Your task to perform on an android device: turn off javascript in the chrome app Image 0: 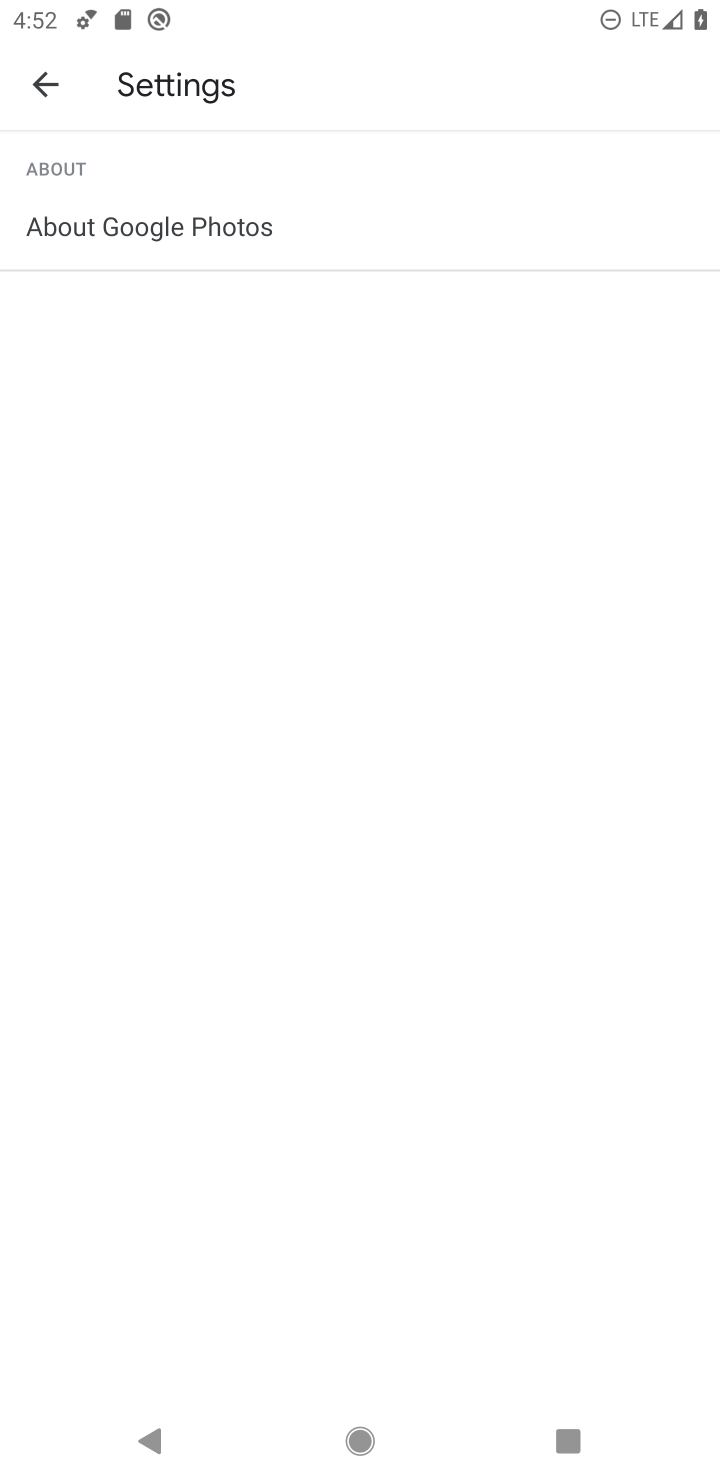
Step 0: press back button
Your task to perform on an android device: turn off javascript in the chrome app Image 1: 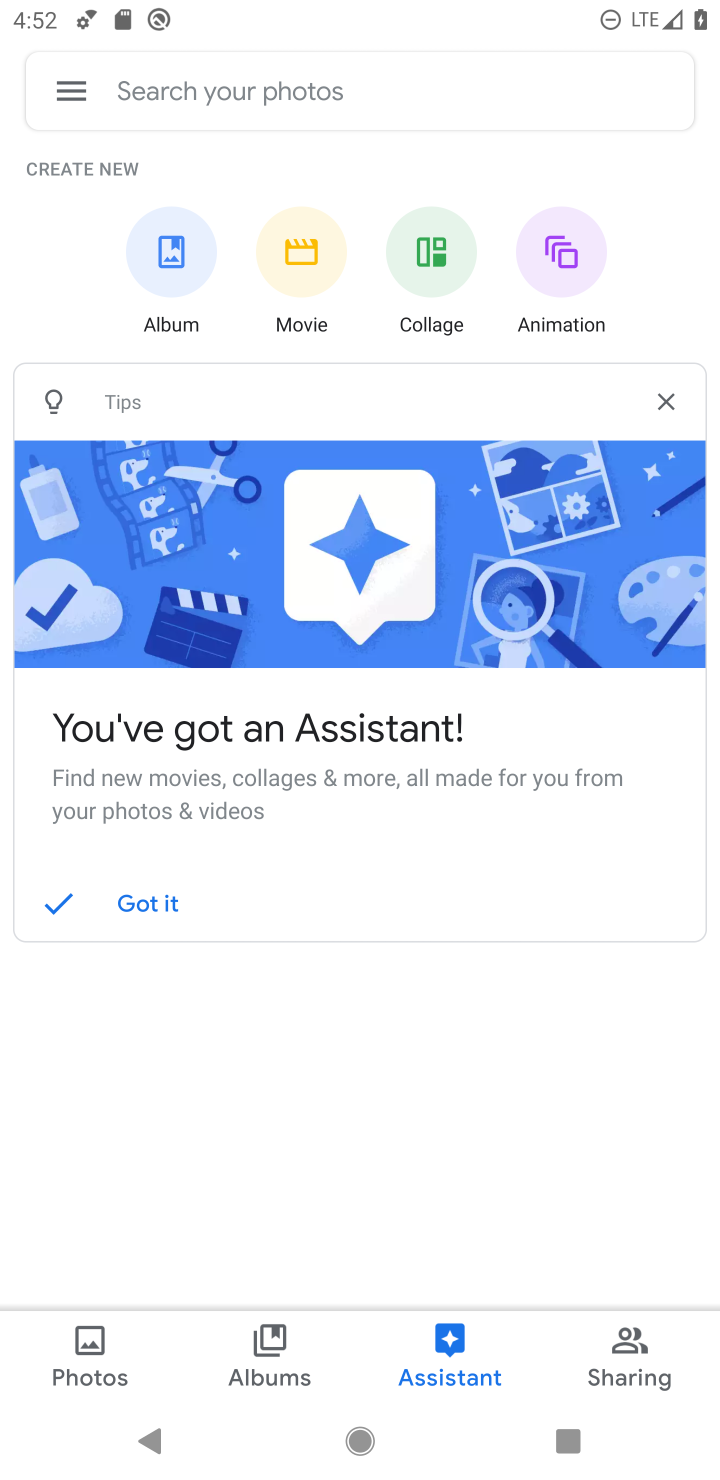
Step 1: press back button
Your task to perform on an android device: turn off javascript in the chrome app Image 2: 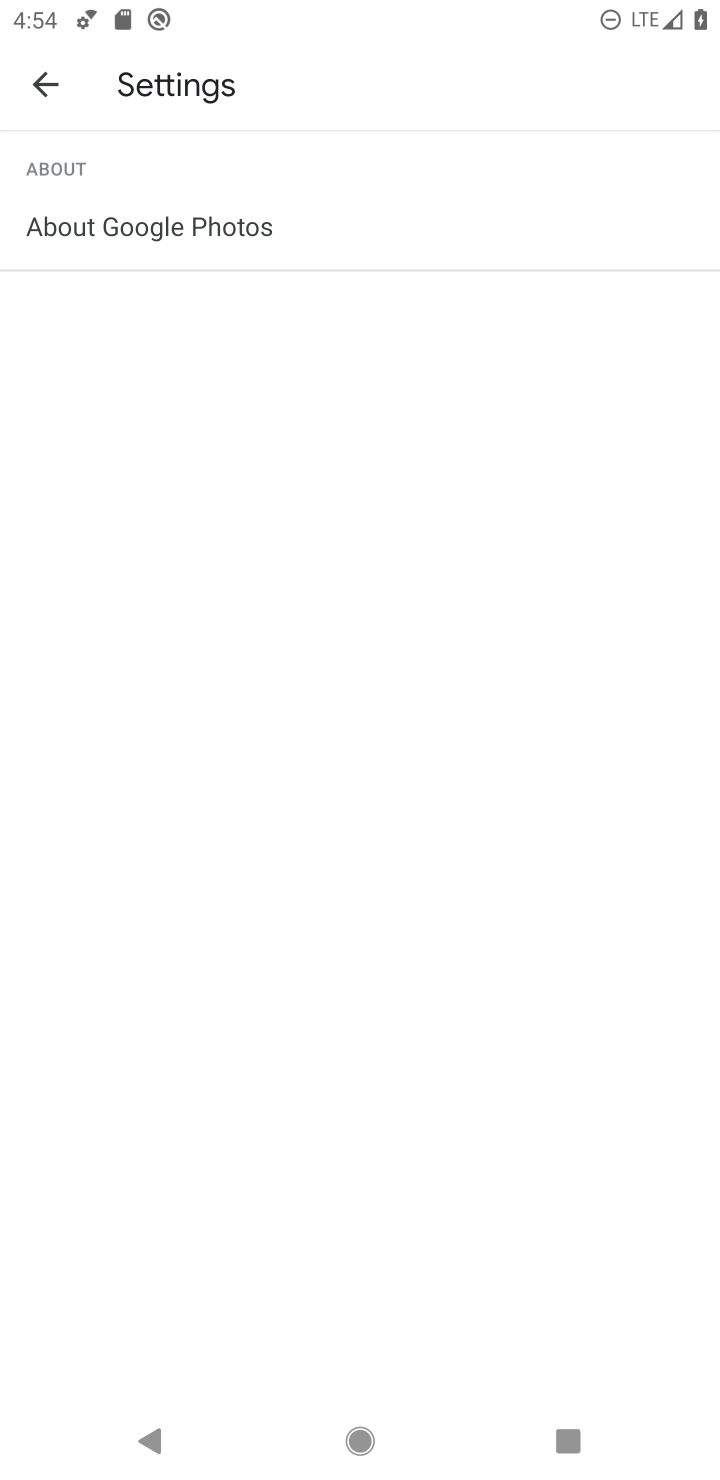
Step 2: click (55, 80)
Your task to perform on an android device: turn off javascript in the chrome app Image 3: 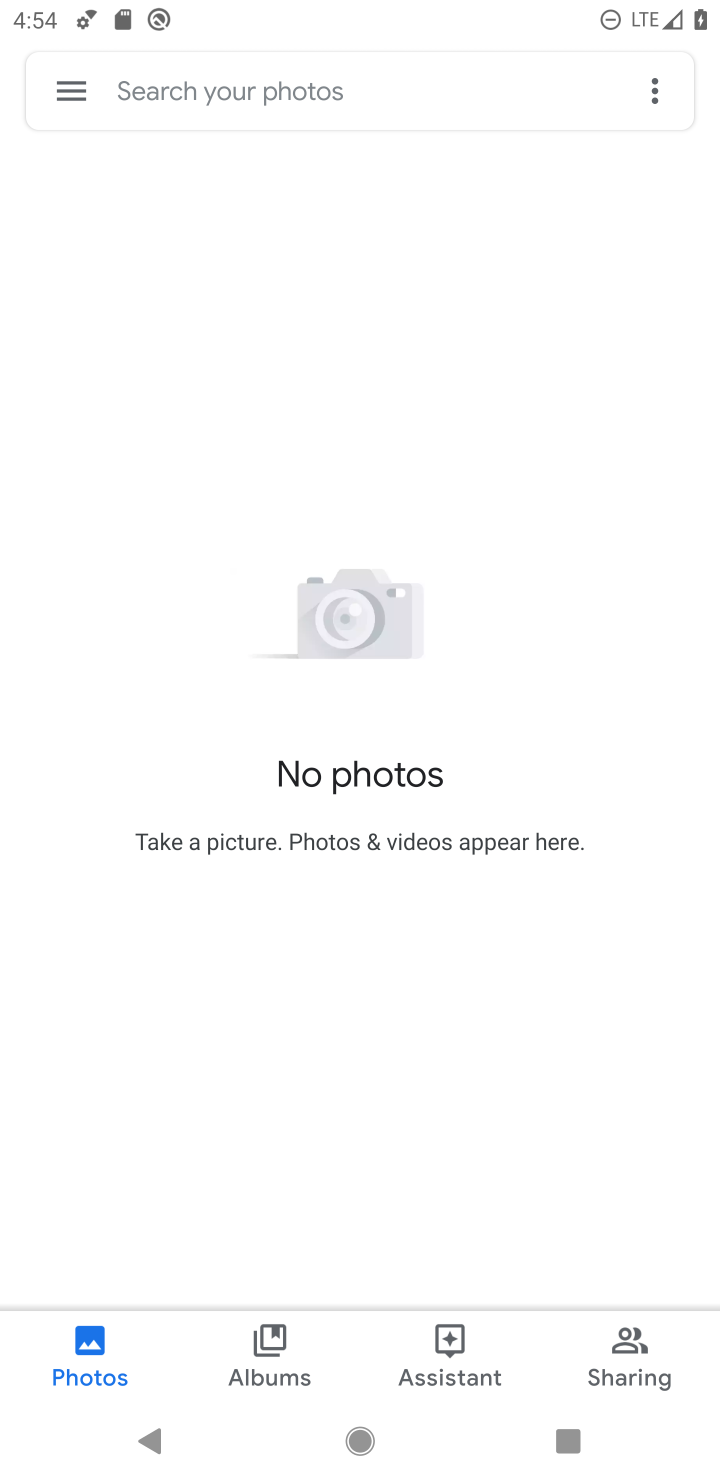
Step 3: click (55, 80)
Your task to perform on an android device: turn off javascript in the chrome app Image 4: 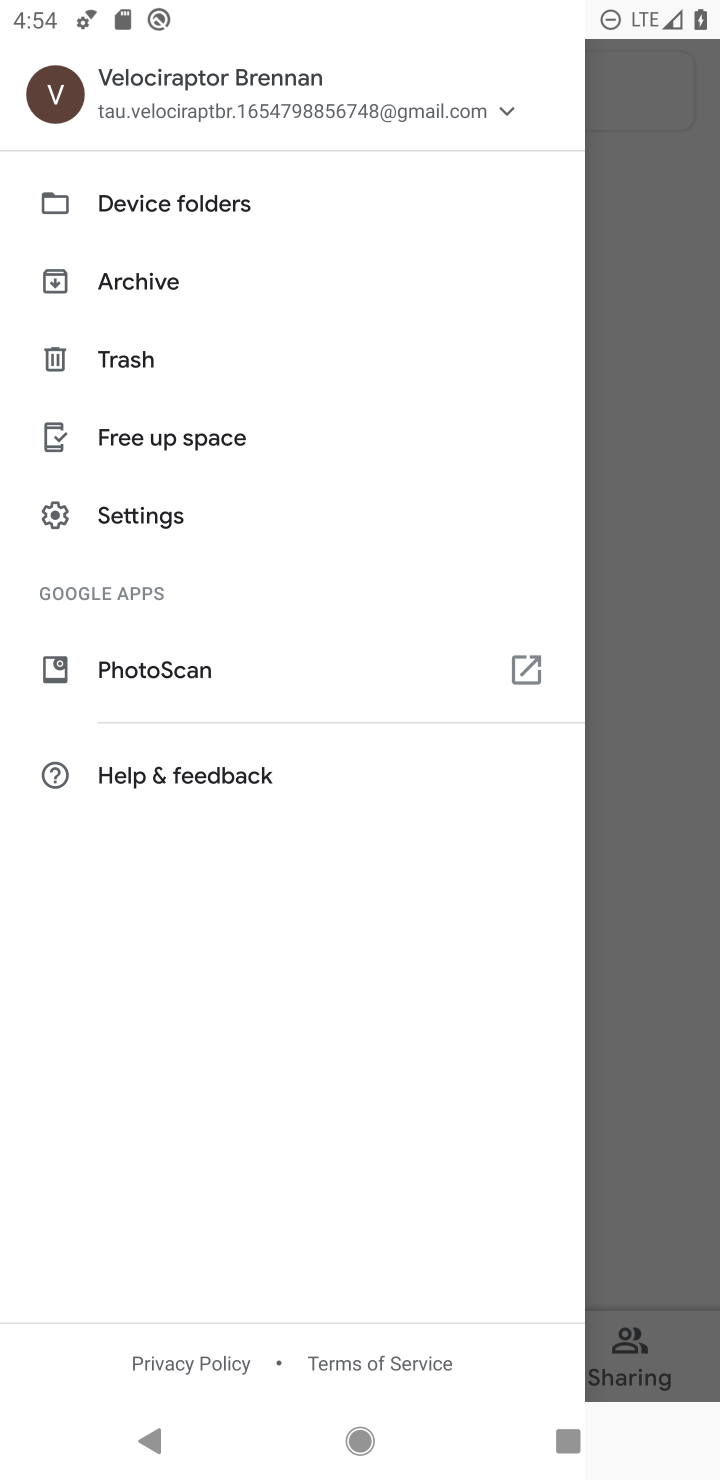
Step 4: press home button
Your task to perform on an android device: turn off javascript in the chrome app Image 5: 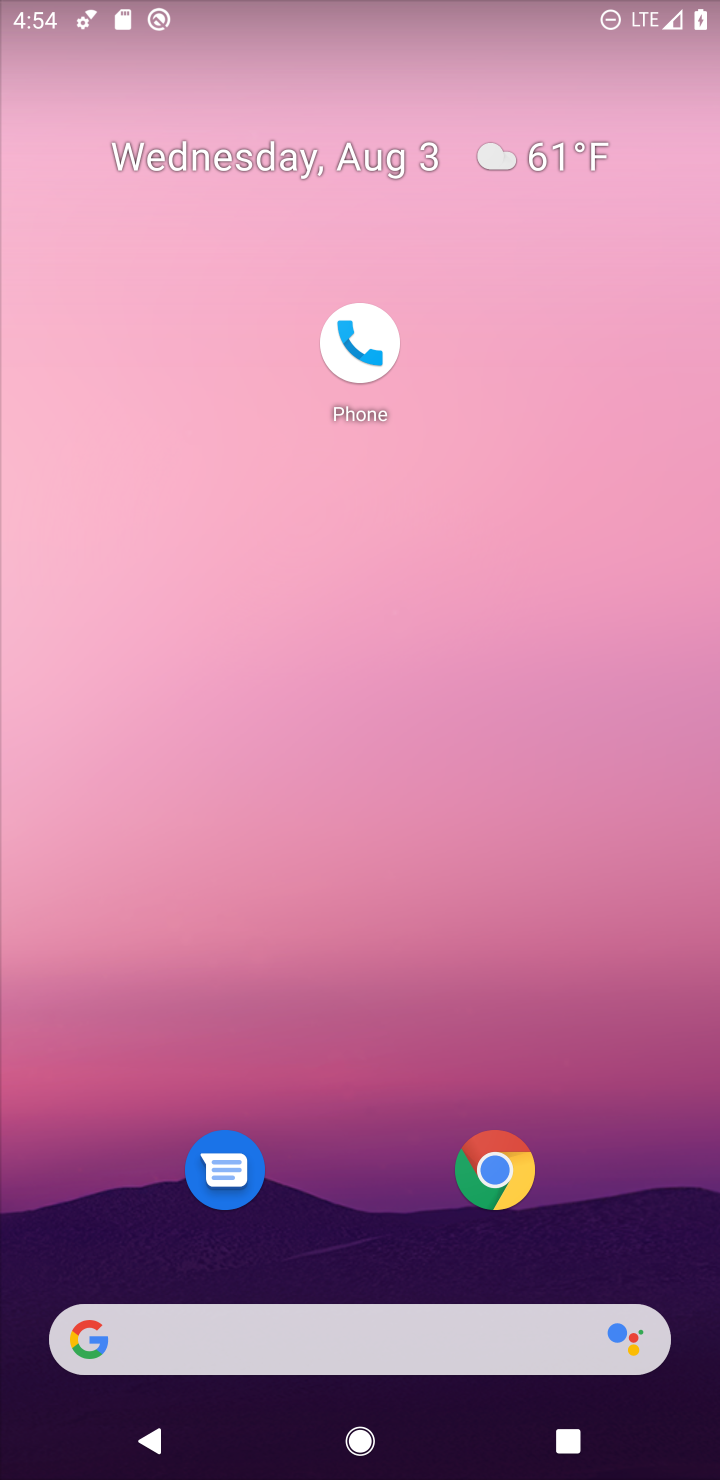
Step 5: click (488, 1161)
Your task to perform on an android device: turn off javascript in the chrome app Image 6: 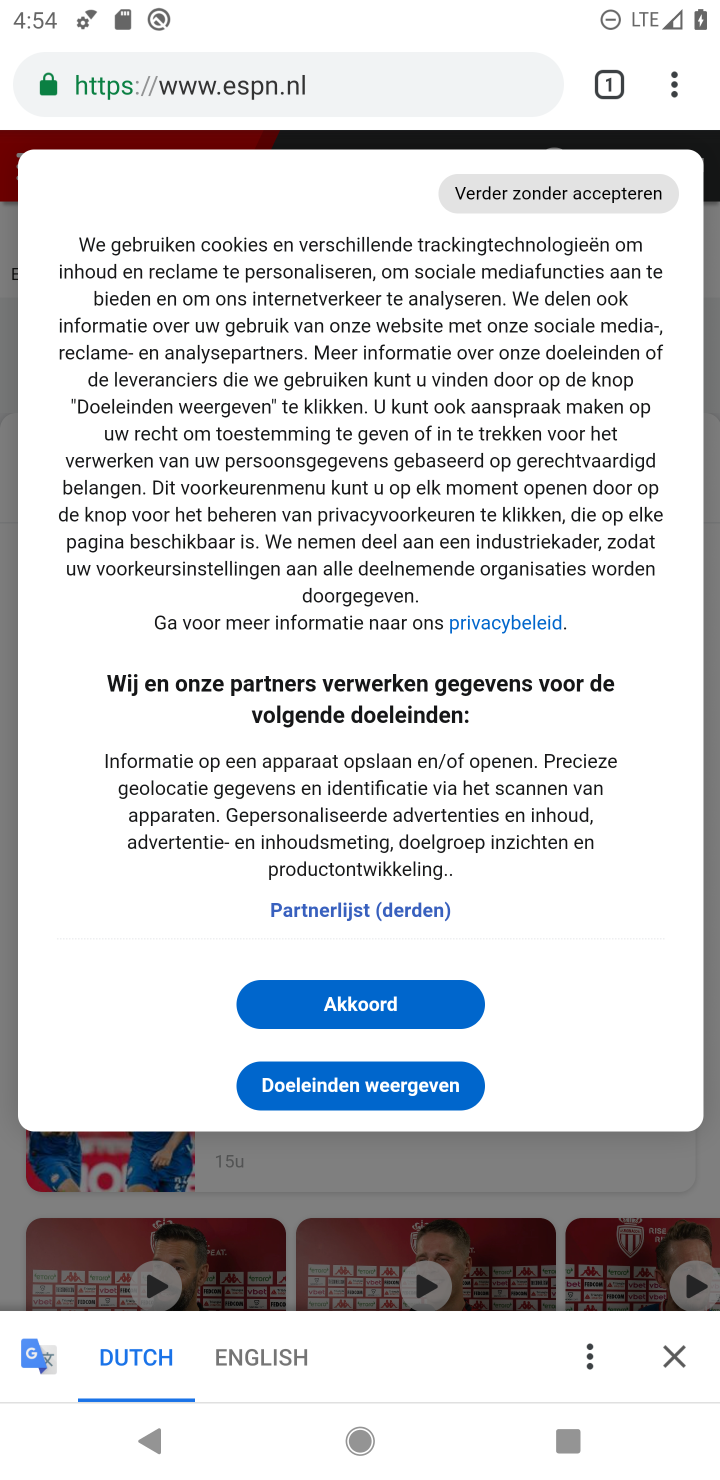
Step 6: click (680, 86)
Your task to perform on an android device: turn off javascript in the chrome app Image 7: 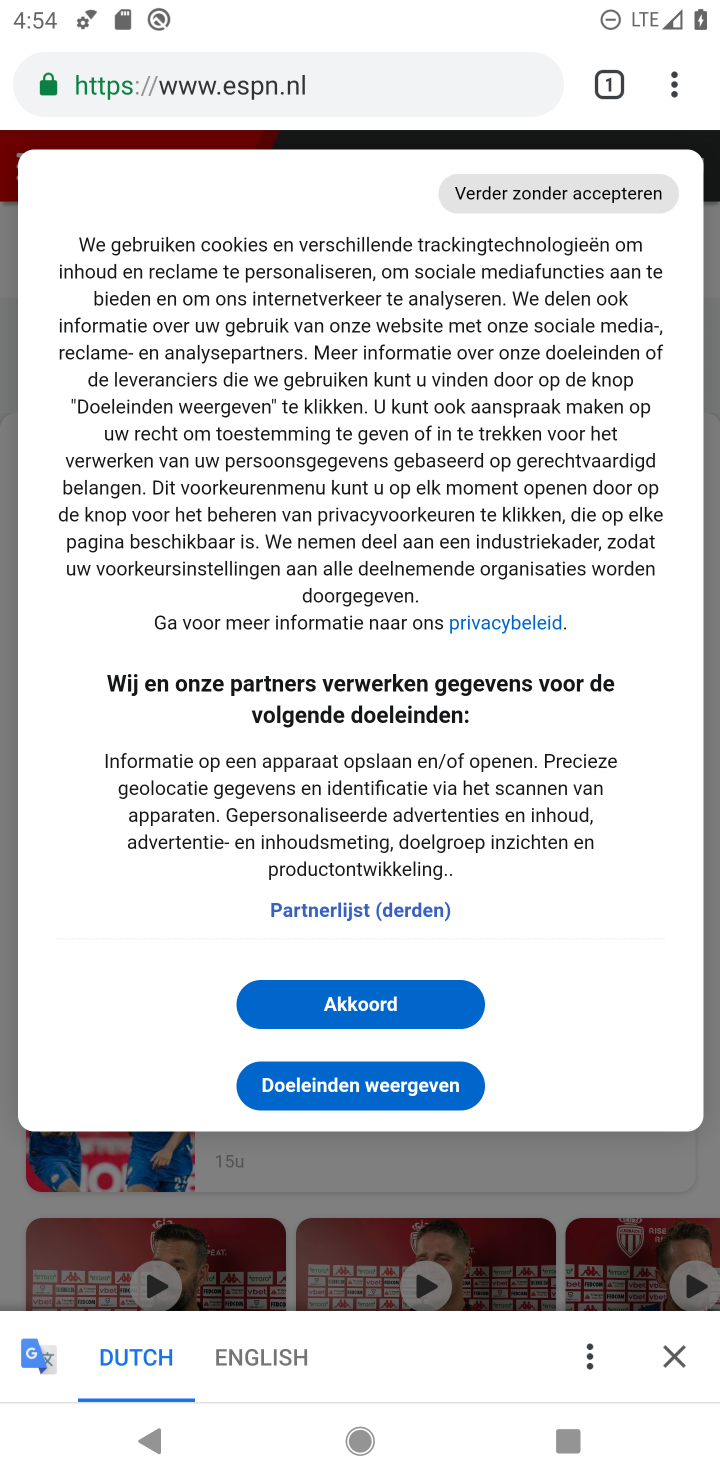
Step 7: click (678, 86)
Your task to perform on an android device: turn off javascript in the chrome app Image 8: 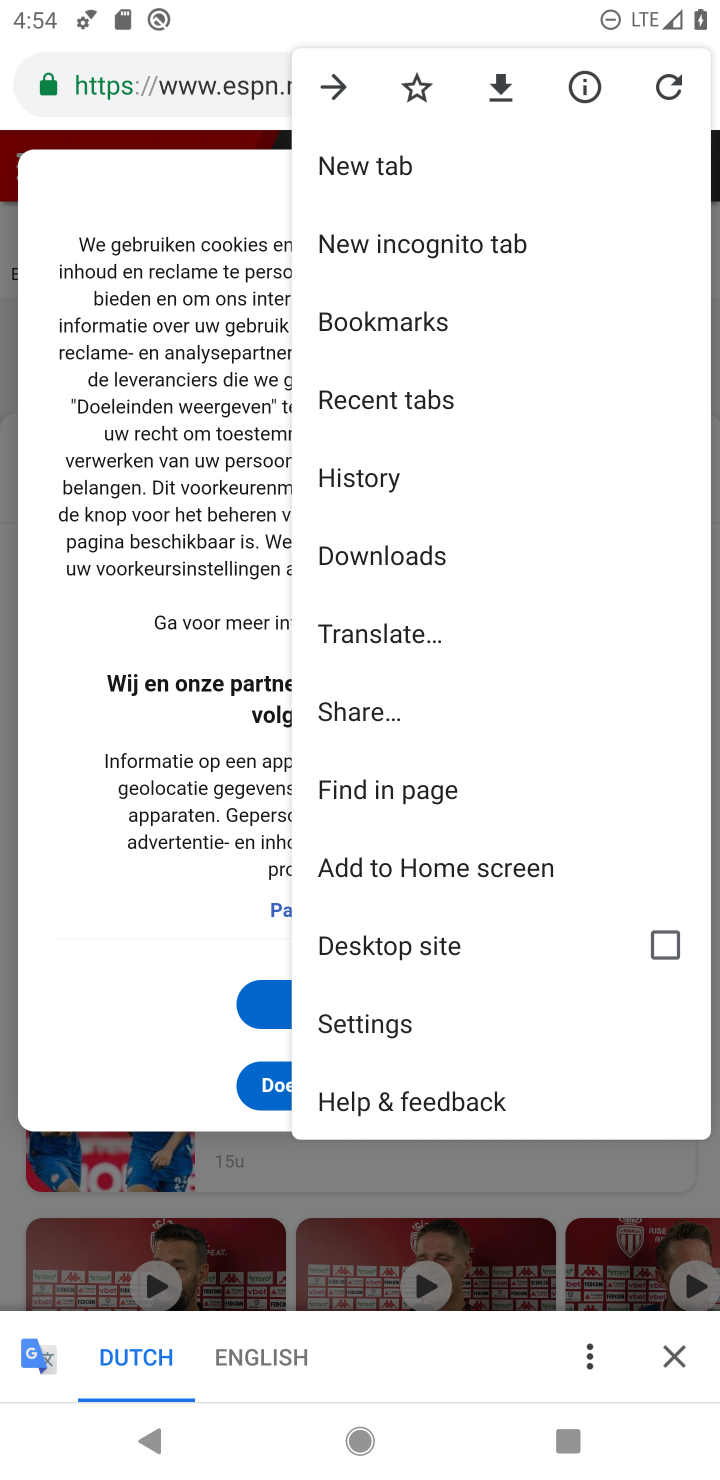
Step 8: click (338, 1022)
Your task to perform on an android device: turn off javascript in the chrome app Image 9: 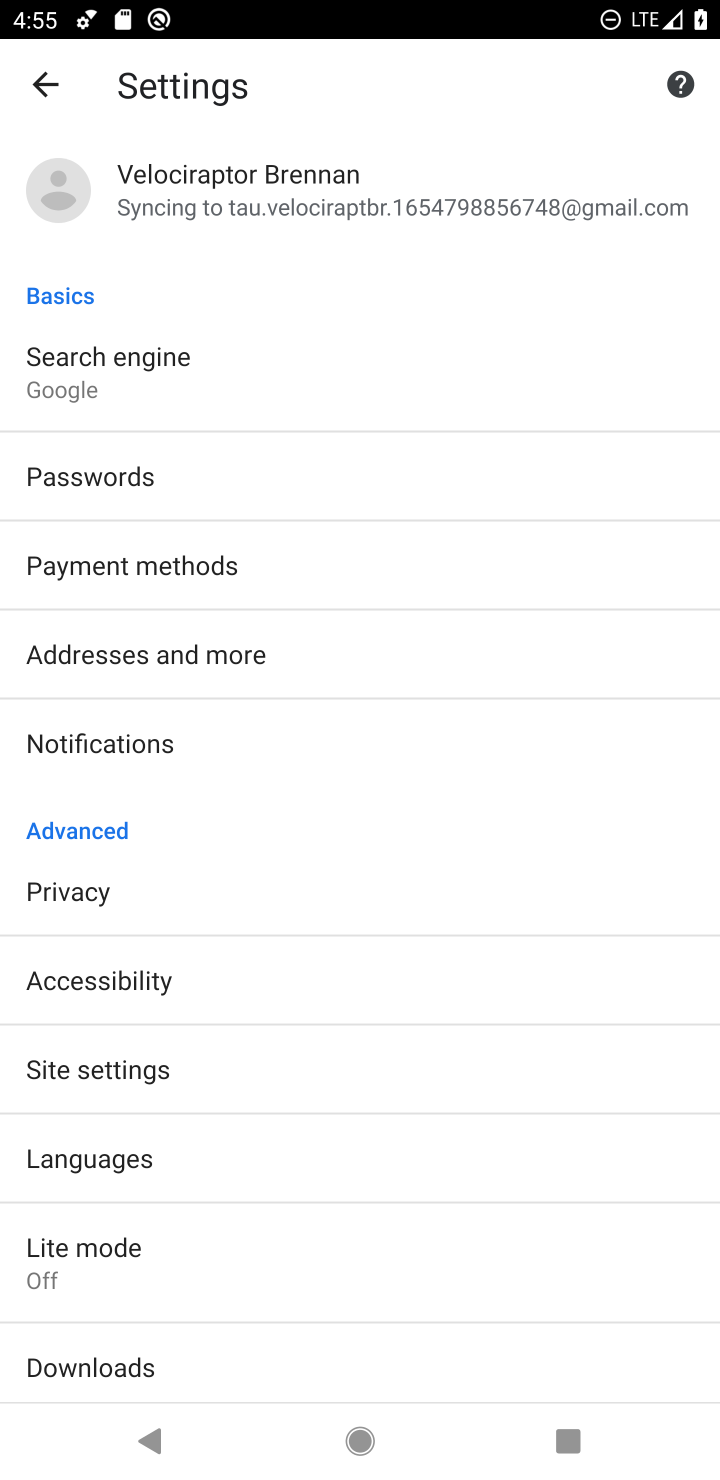
Step 9: click (166, 1063)
Your task to perform on an android device: turn off javascript in the chrome app Image 10: 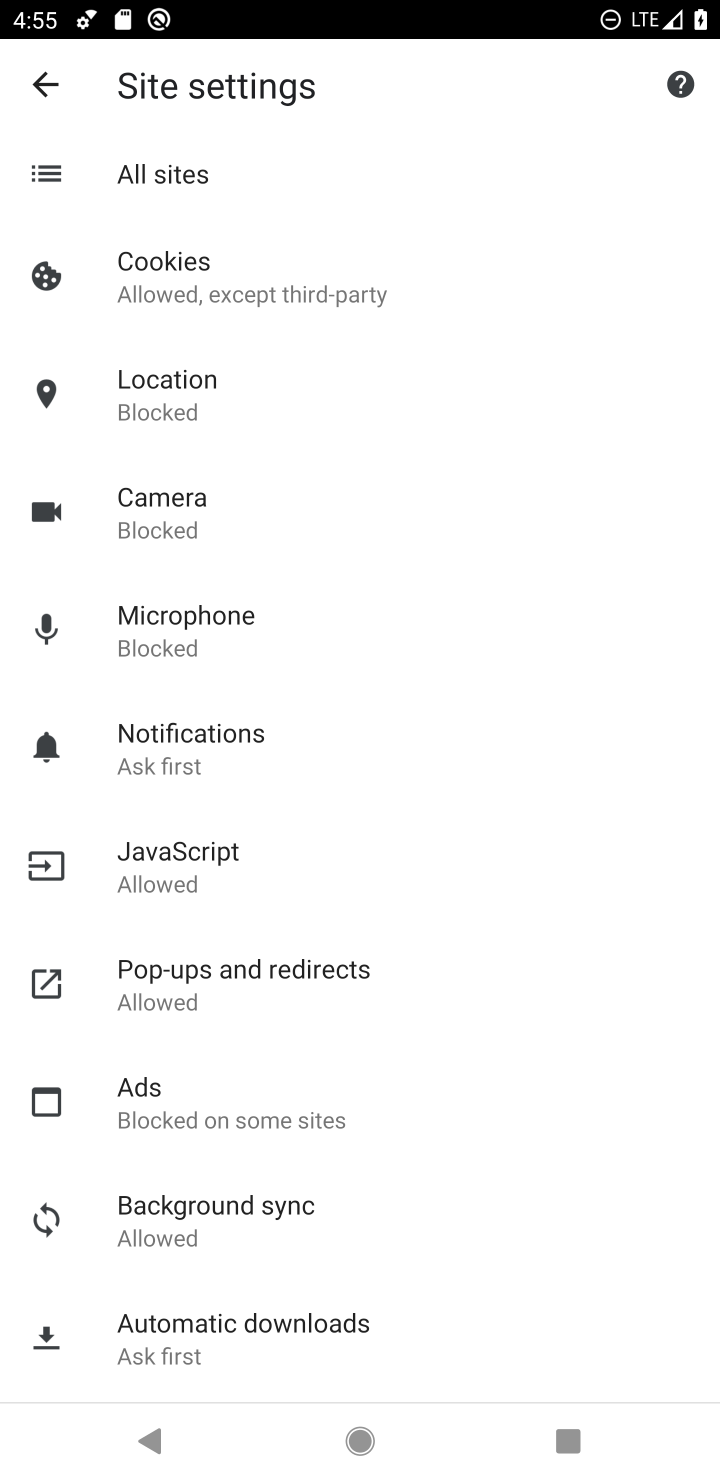
Step 10: click (197, 867)
Your task to perform on an android device: turn off javascript in the chrome app Image 11: 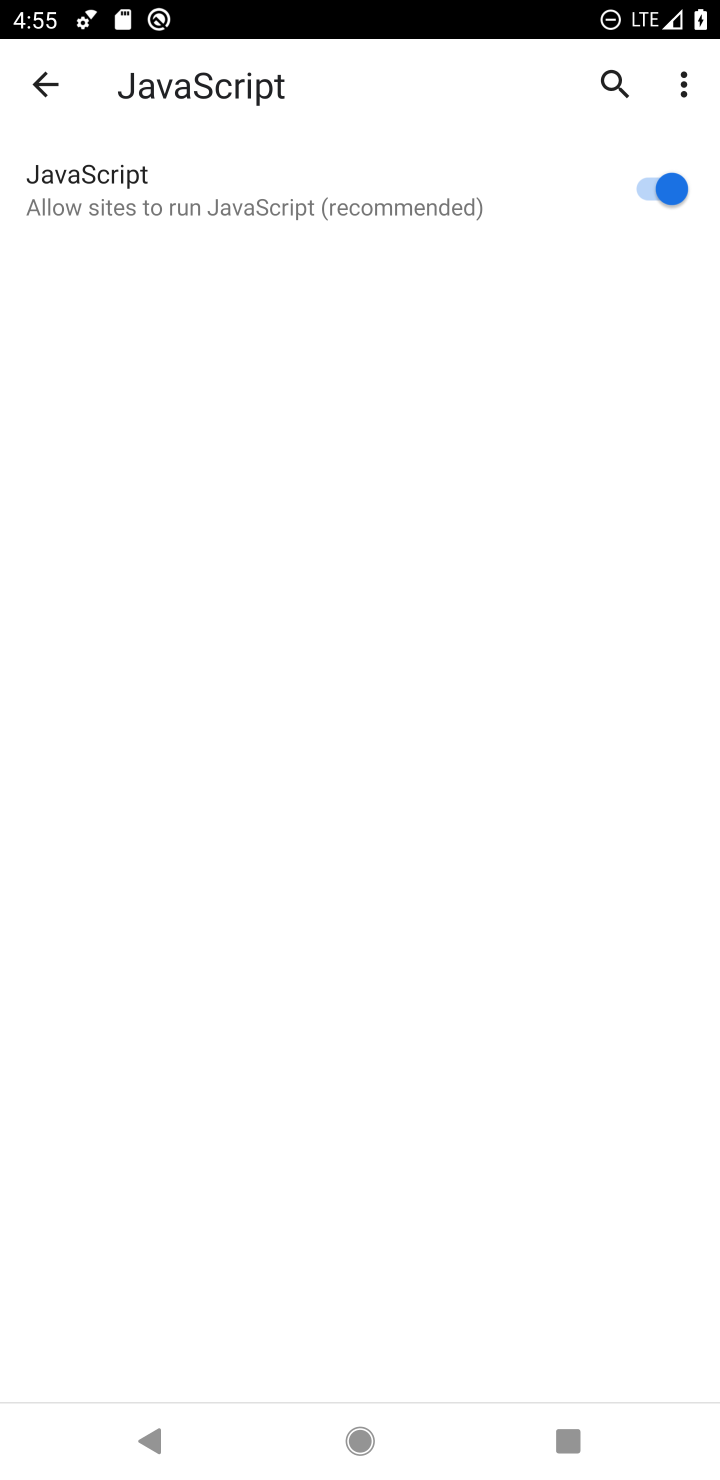
Step 11: click (649, 193)
Your task to perform on an android device: turn off javascript in the chrome app Image 12: 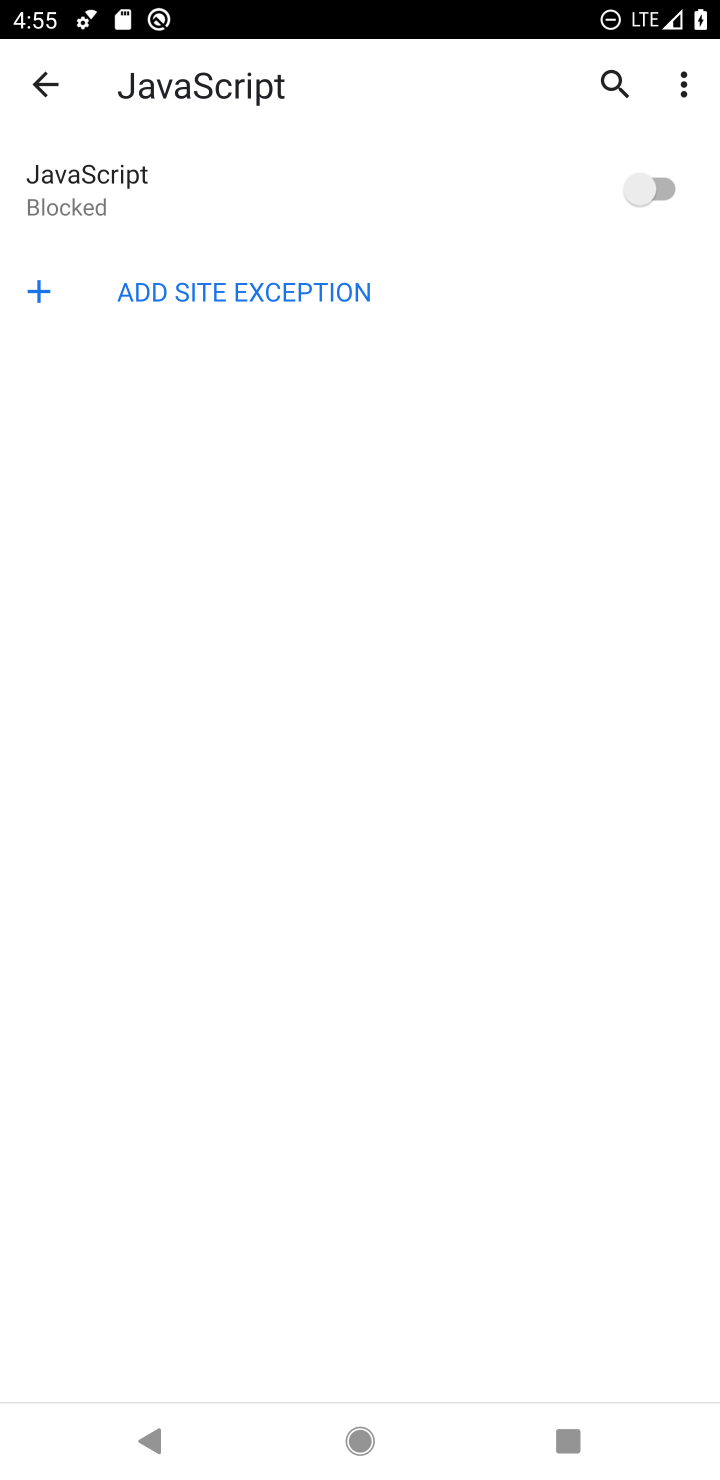
Step 12: task complete